Your task to perform on an android device: Open display settings Image 0: 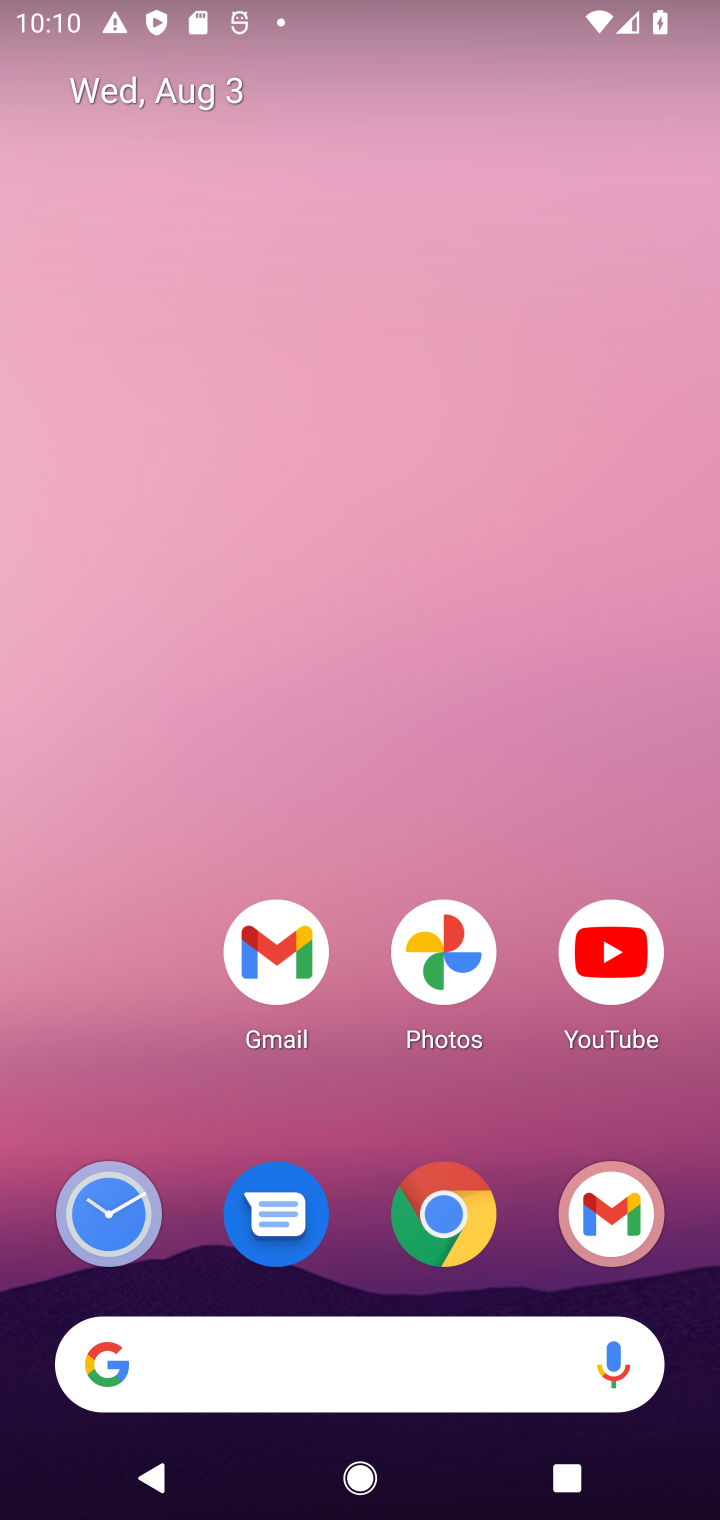
Step 0: drag from (479, 1144) to (509, 13)
Your task to perform on an android device: Open display settings Image 1: 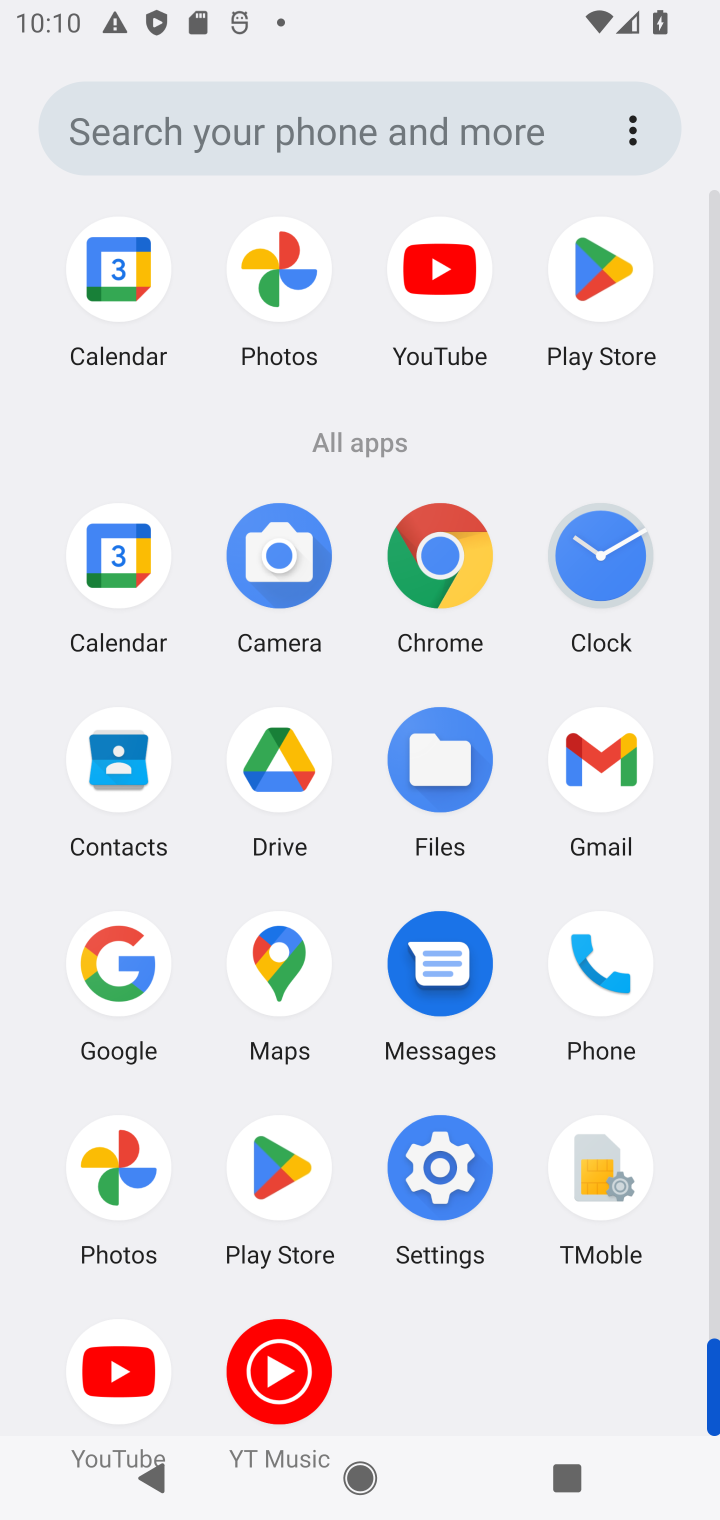
Step 1: click (459, 1216)
Your task to perform on an android device: Open display settings Image 2: 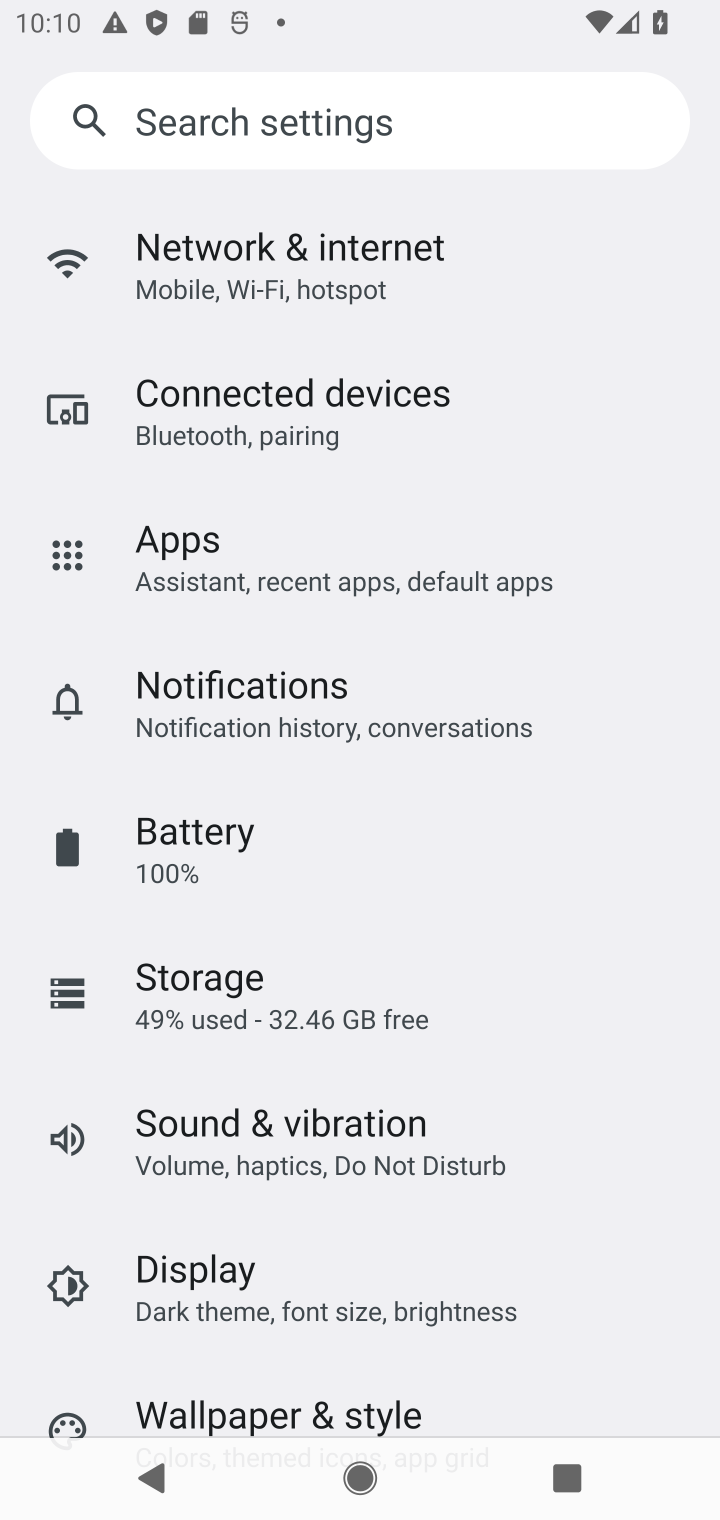
Step 2: click (317, 1238)
Your task to perform on an android device: Open display settings Image 3: 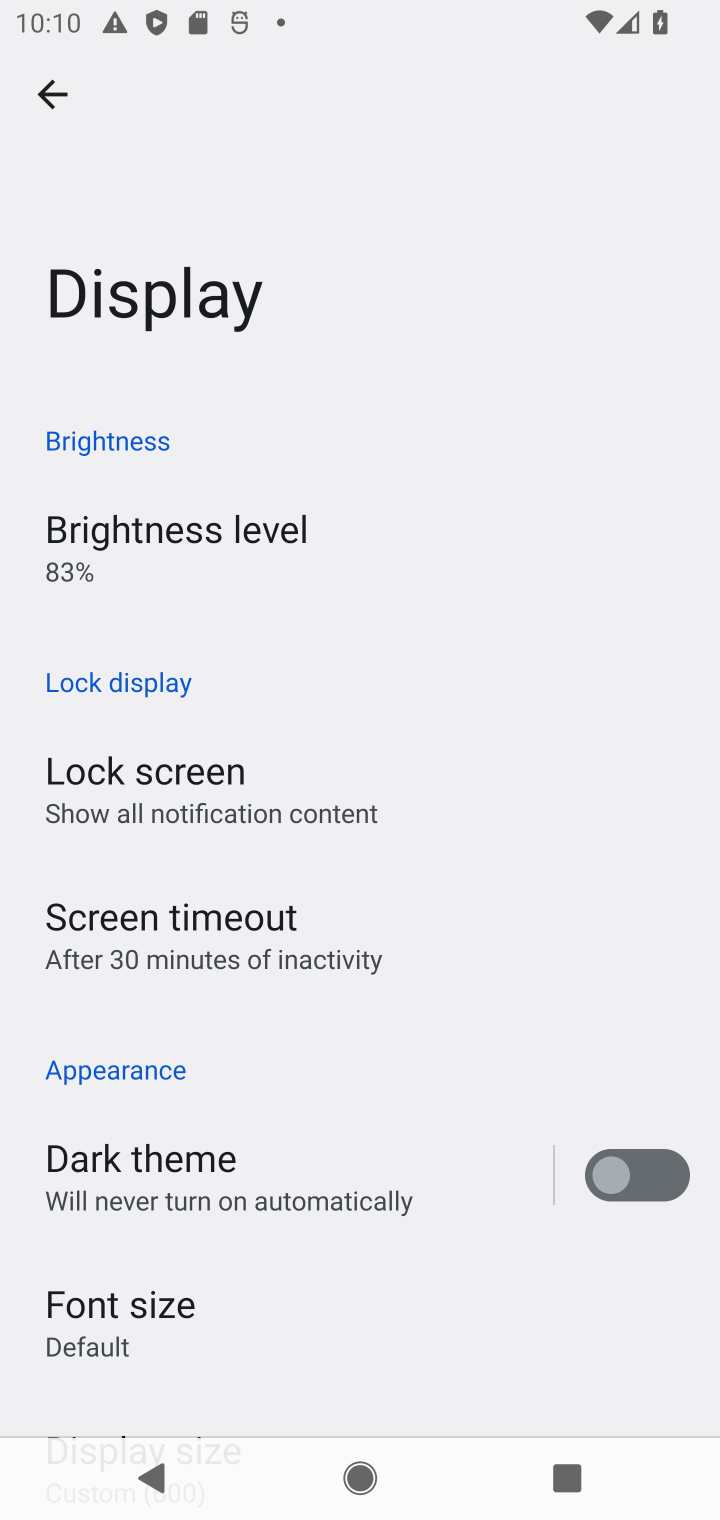
Step 3: task complete